Your task to perform on an android device: move an email to a new category in the gmail app Image 0: 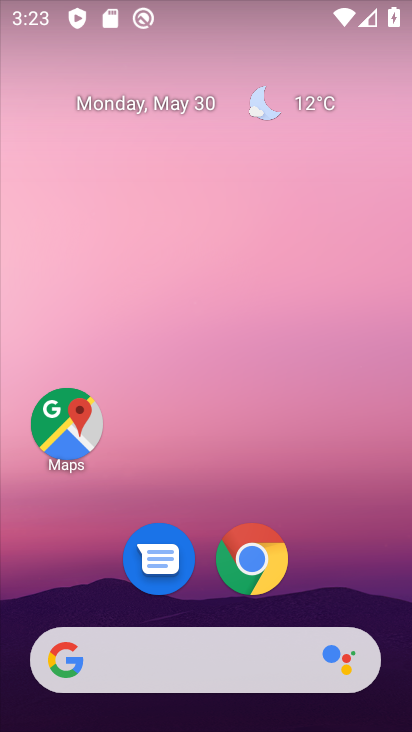
Step 0: drag from (209, 723) to (209, 51)
Your task to perform on an android device: move an email to a new category in the gmail app Image 1: 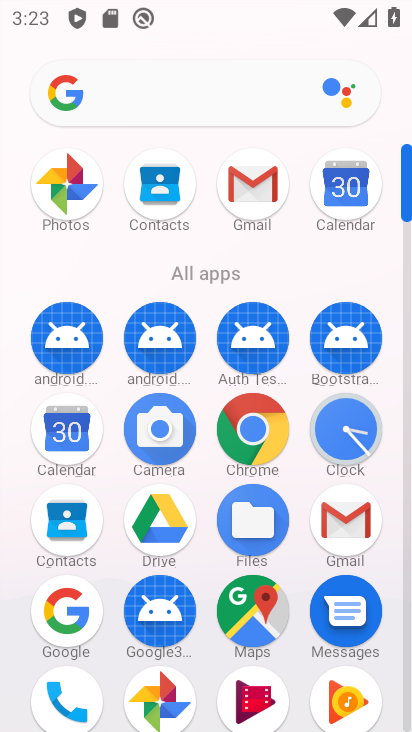
Step 1: click (341, 524)
Your task to perform on an android device: move an email to a new category in the gmail app Image 2: 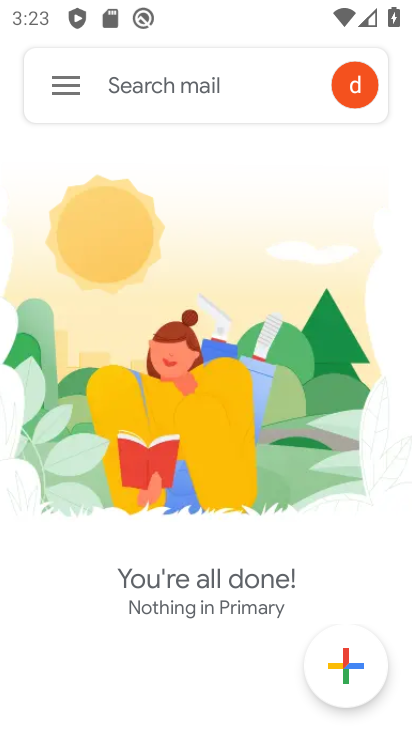
Step 2: task complete